Your task to perform on an android device: change the clock style Image 0: 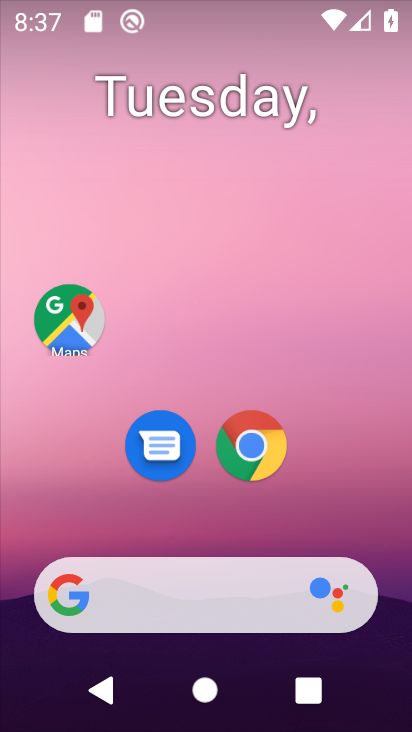
Step 0: drag from (197, 472) to (247, 93)
Your task to perform on an android device: change the clock style Image 1: 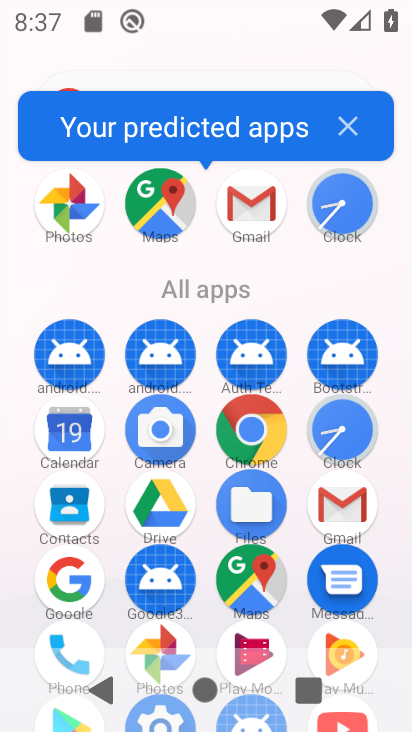
Step 1: click (328, 186)
Your task to perform on an android device: change the clock style Image 2: 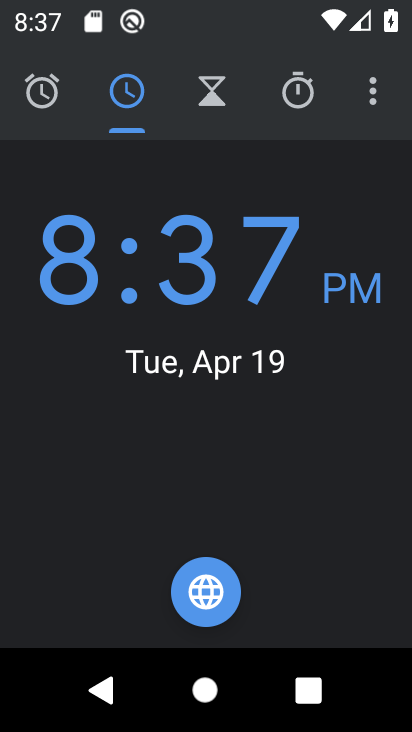
Step 2: click (372, 91)
Your task to perform on an android device: change the clock style Image 3: 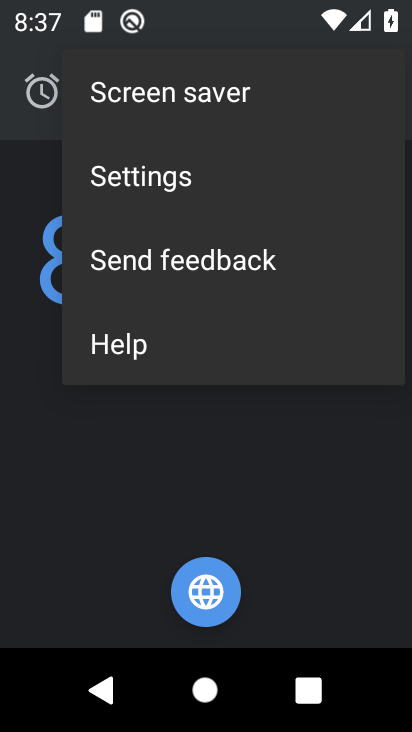
Step 3: click (179, 176)
Your task to perform on an android device: change the clock style Image 4: 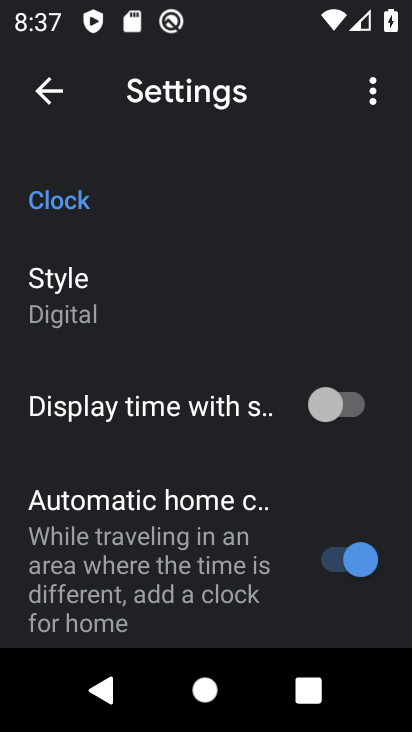
Step 4: click (108, 289)
Your task to perform on an android device: change the clock style Image 5: 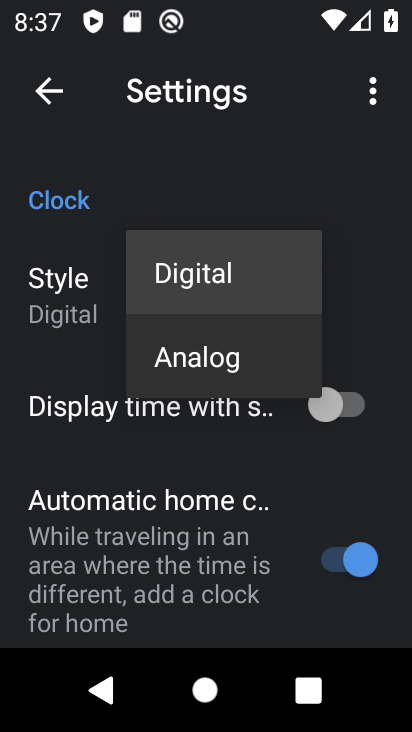
Step 5: click (180, 360)
Your task to perform on an android device: change the clock style Image 6: 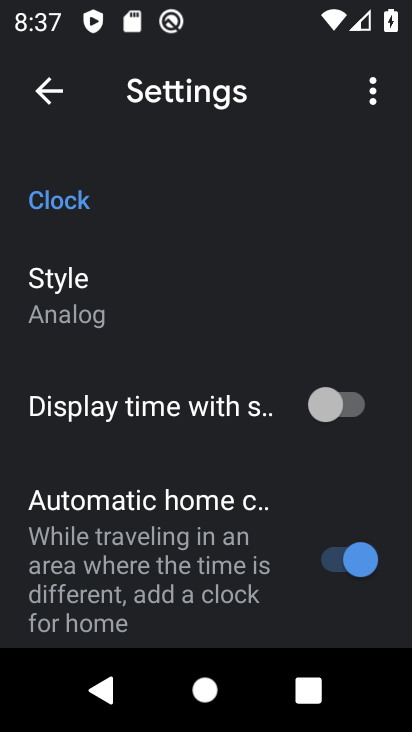
Step 6: task complete